Your task to perform on an android device: Go to Maps Image 0: 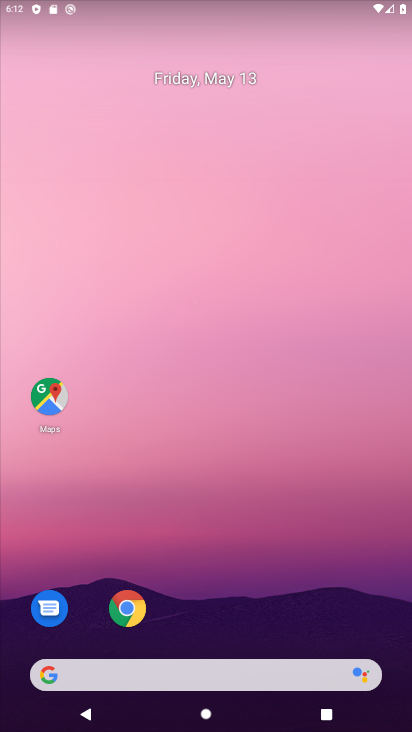
Step 0: click (40, 401)
Your task to perform on an android device: Go to Maps Image 1: 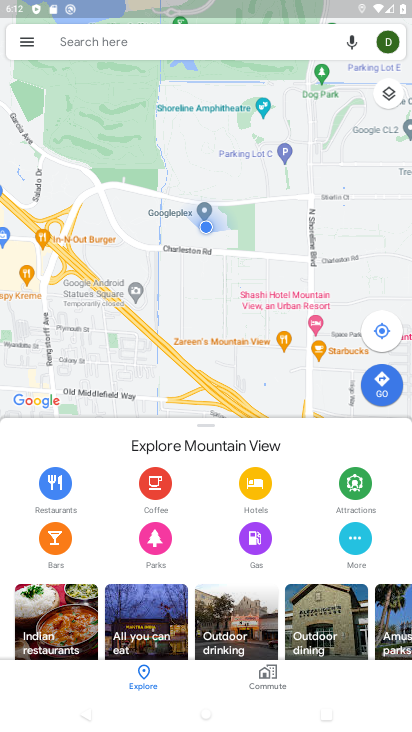
Step 1: task complete